Your task to perform on an android device: change your default location settings in chrome Image 0: 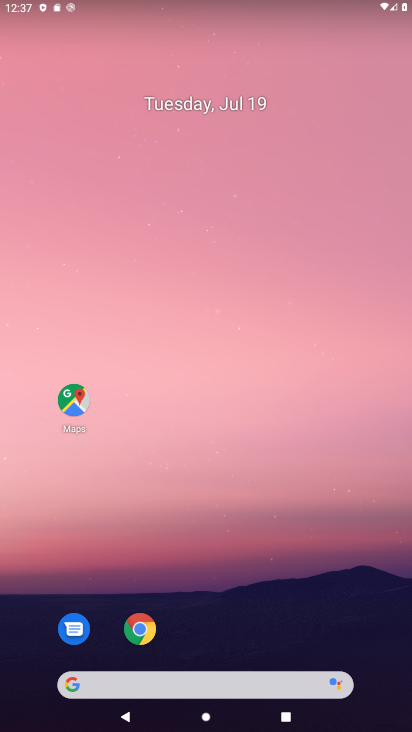
Step 0: drag from (303, 600) to (266, 73)
Your task to perform on an android device: change your default location settings in chrome Image 1: 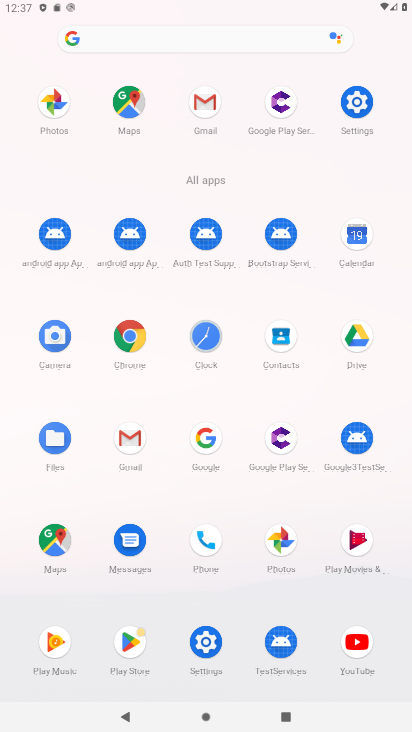
Step 1: click (119, 328)
Your task to perform on an android device: change your default location settings in chrome Image 2: 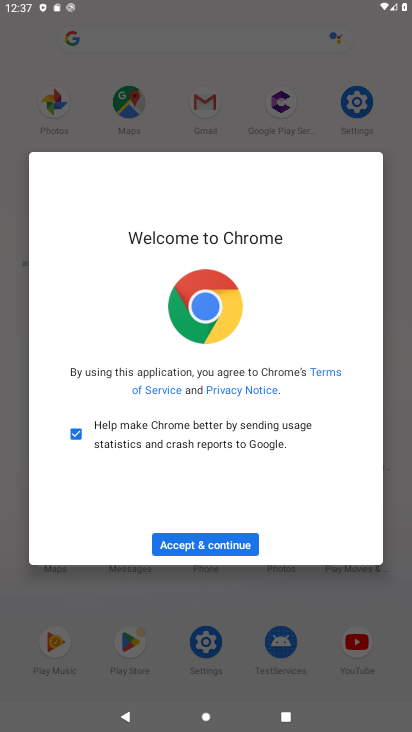
Step 2: click (240, 548)
Your task to perform on an android device: change your default location settings in chrome Image 3: 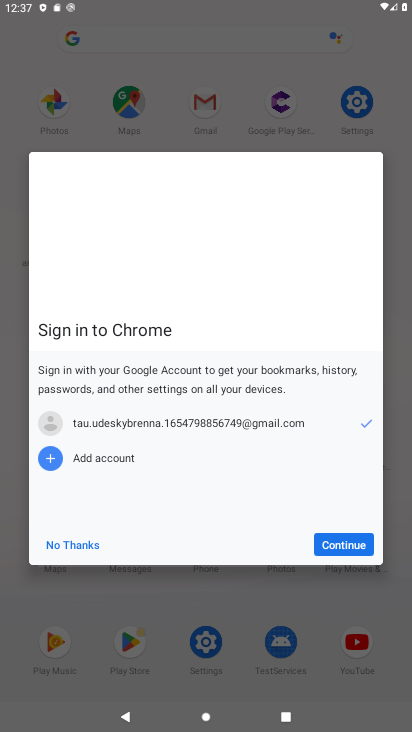
Step 3: click (316, 545)
Your task to perform on an android device: change your default location settings in chrome Image 4: 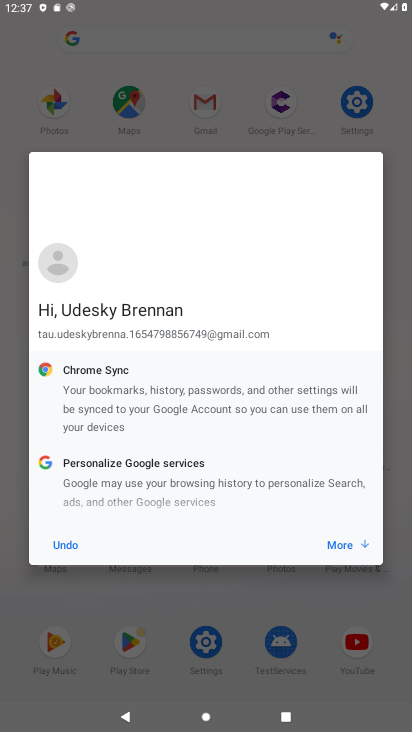
Step 4: click (332, 548)
Your task to perform on an android device: change your default location settings in chrome Image 5: 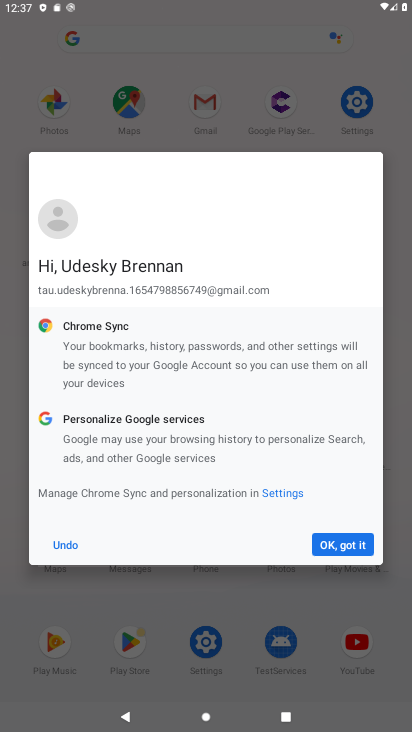
Step 5: click (335, 546)
Your task to perform on an android device: change your default location settings in chrome Image 6: 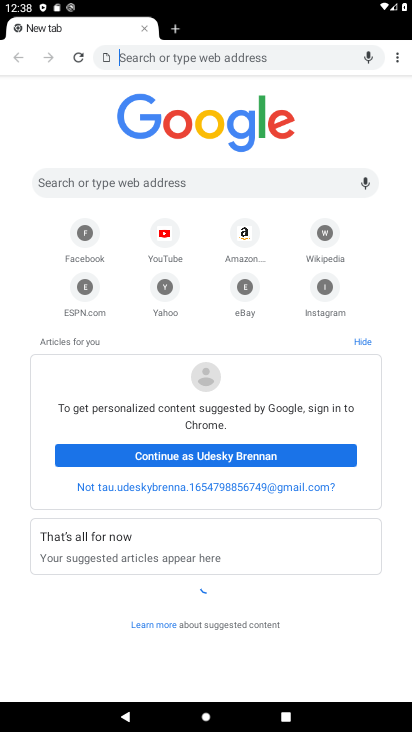
Step 6: drag from (401, 54) to (281, 266)
Your task to perform on an android device: change your default location settings in chrome Image 7: 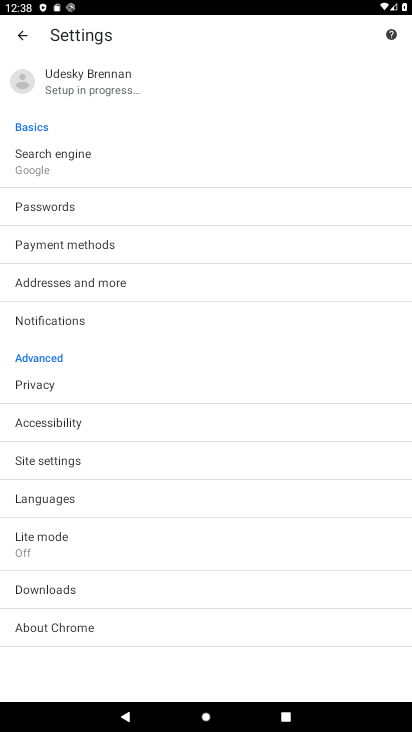
Step 7: click (66, 160)
Your task to perform on an android device: change your default location settings in chrome Image 8: 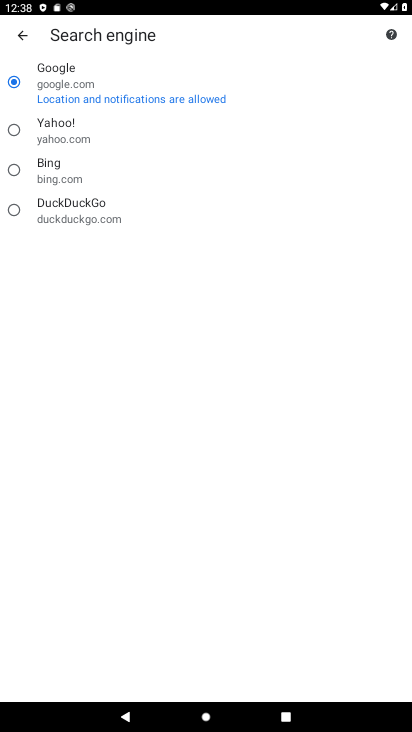
Step 8: click (23, 43)
Your task to perform on an android device: change your default location settings in chrome Image 9: 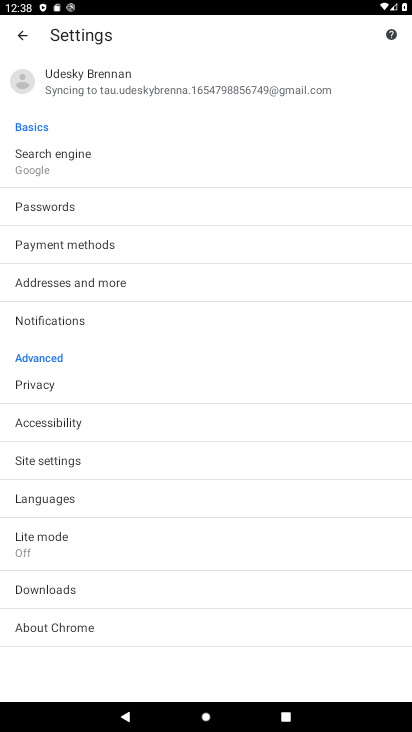
Step 9: click (65, 458)
Your task to perform on an android device: change your default location settings in chrome Image 10: 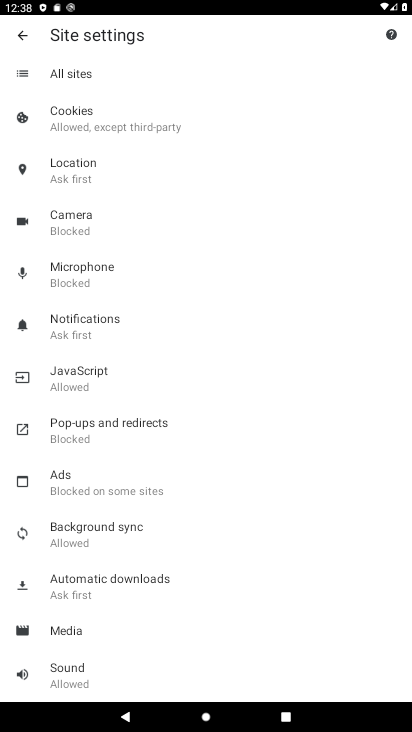
Step 10: click (77, 163)
Your task to perform on an android device: change your default location settings in chrome Image 11: 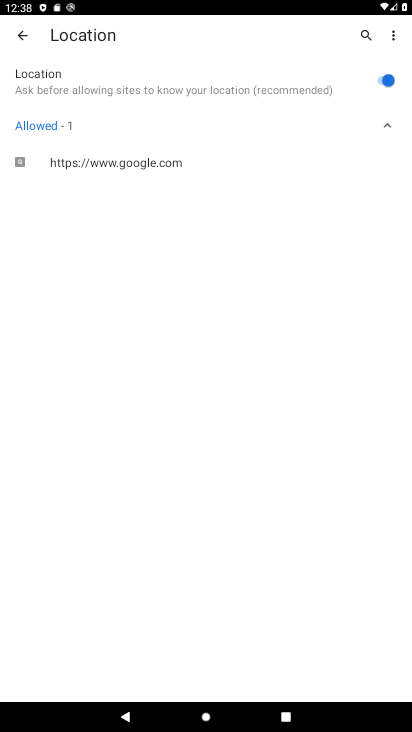
Step 11: click (387, 79)
Your task to perform on an android device: change your default location settings in chrome Image 12: 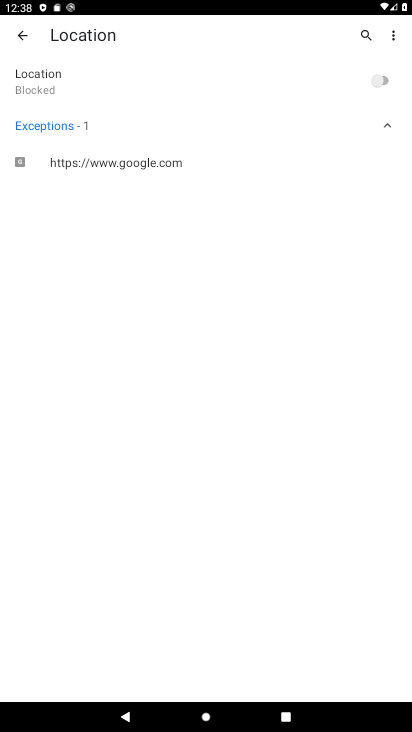
Step 12: task complete